Your task to perform on an android device: install app "YouTube Kids" Image 0: 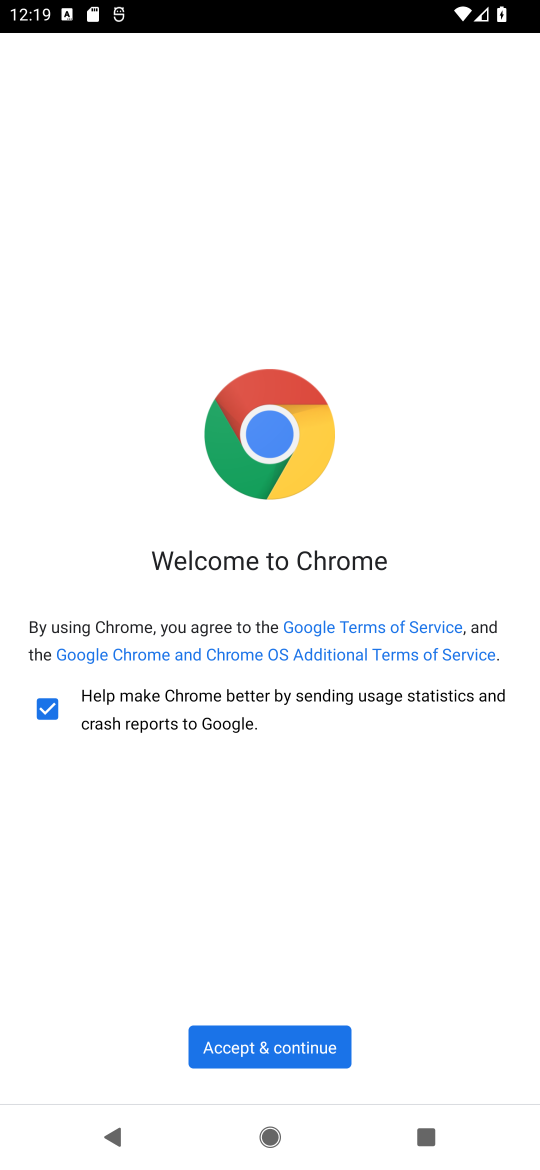
Step 0: press home button
Your task to perform on an android device: install app "YouTube Kids" Image 1: 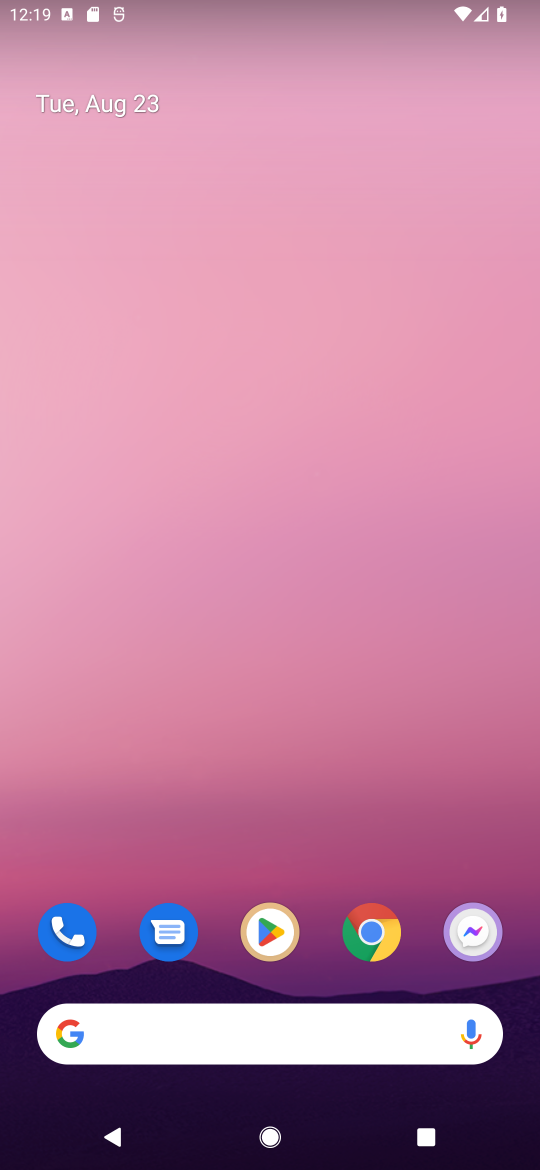
Step 1: click (285, 937)
Your task to perform on an android device: install app "YouTube Kids" Image 2: 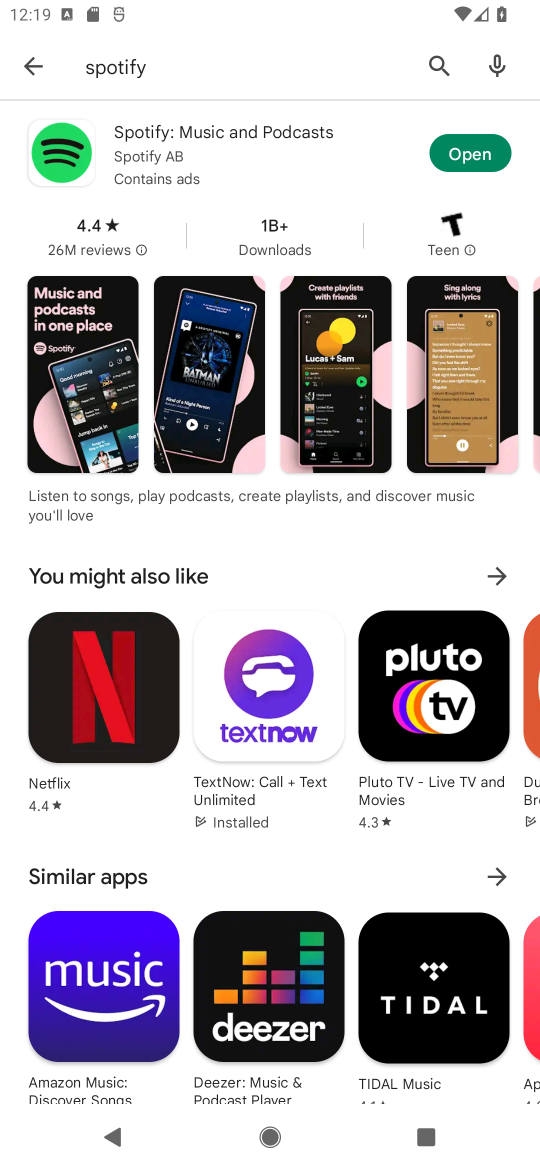
Step 2: click (444, 57)
Your task to perform on an android device: install app "YouTube Kids" Image 3: 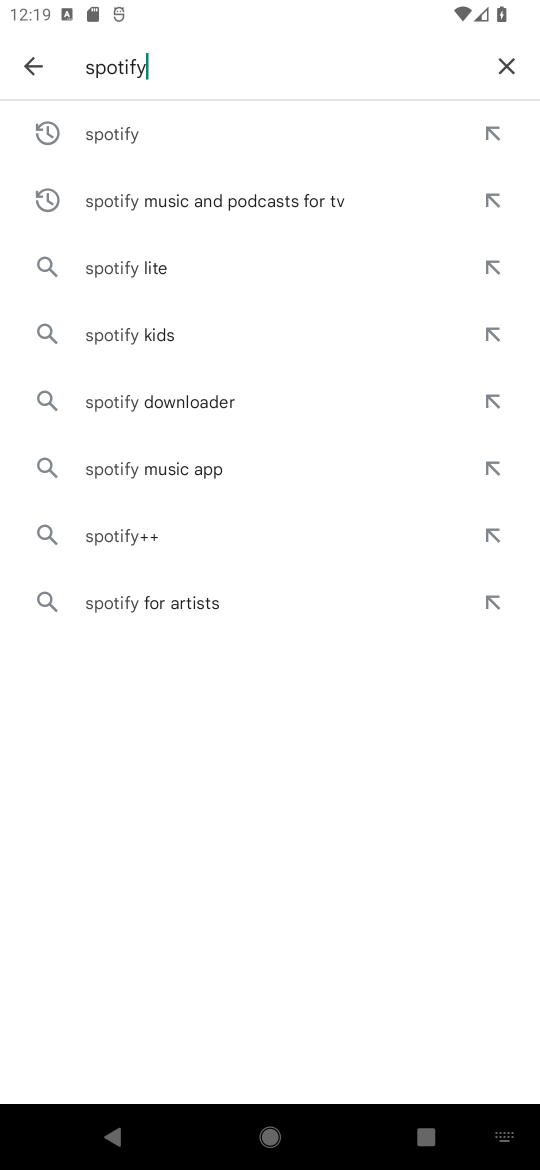
Step 3: click (516, 61)
Your task to perform on an android device: install app "YouTube Kids" Image 4: 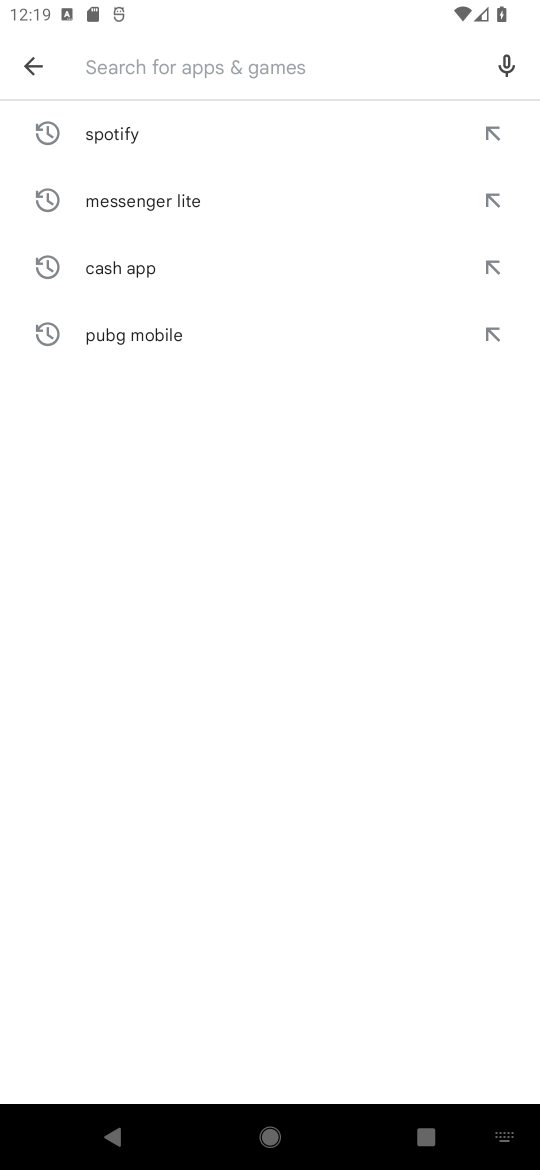
Step 4: click (118, 72)
Your task to perform on an android device: install app "YouTube Kids" Image 5: 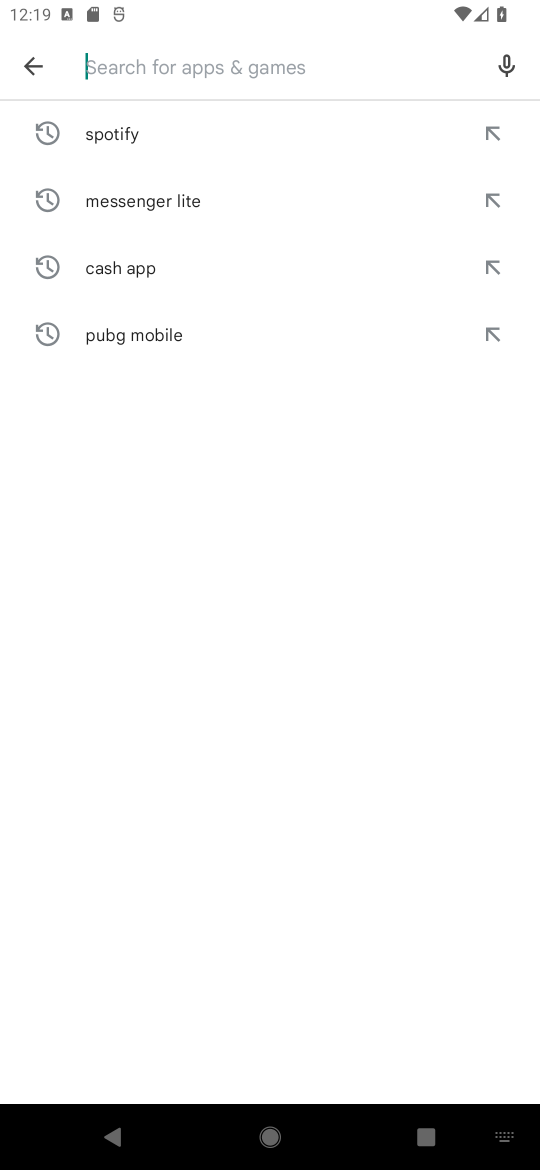
Step 5: type "YouTube Kids"
Your task to perform on an android device: install app "YouTube Kids" Image 6: 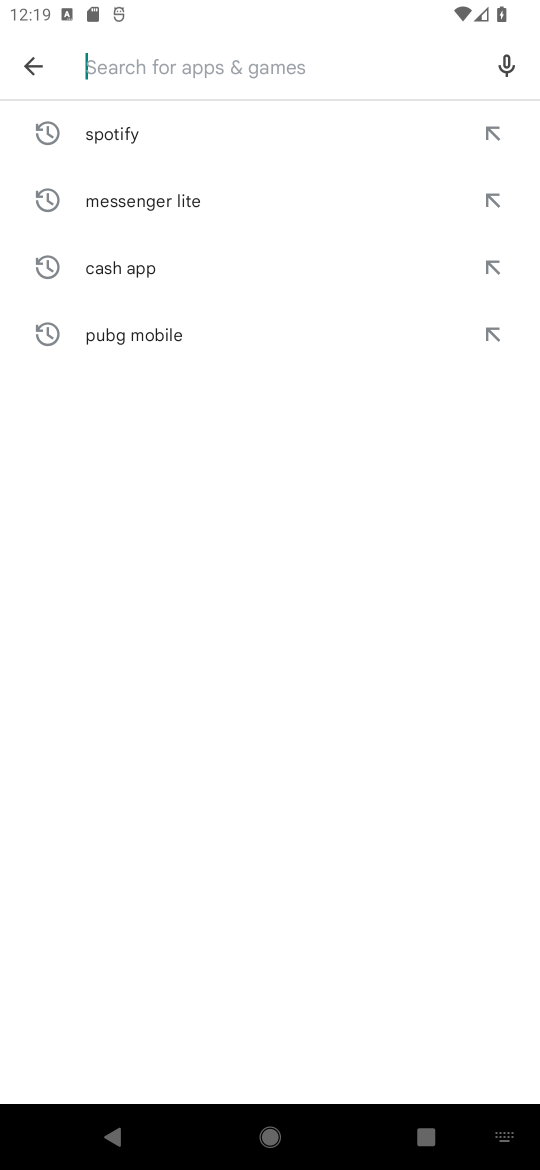
Step 6: click (373, 686)
Your task to perform on an android device: install app "YouTube Kids" Image 7: 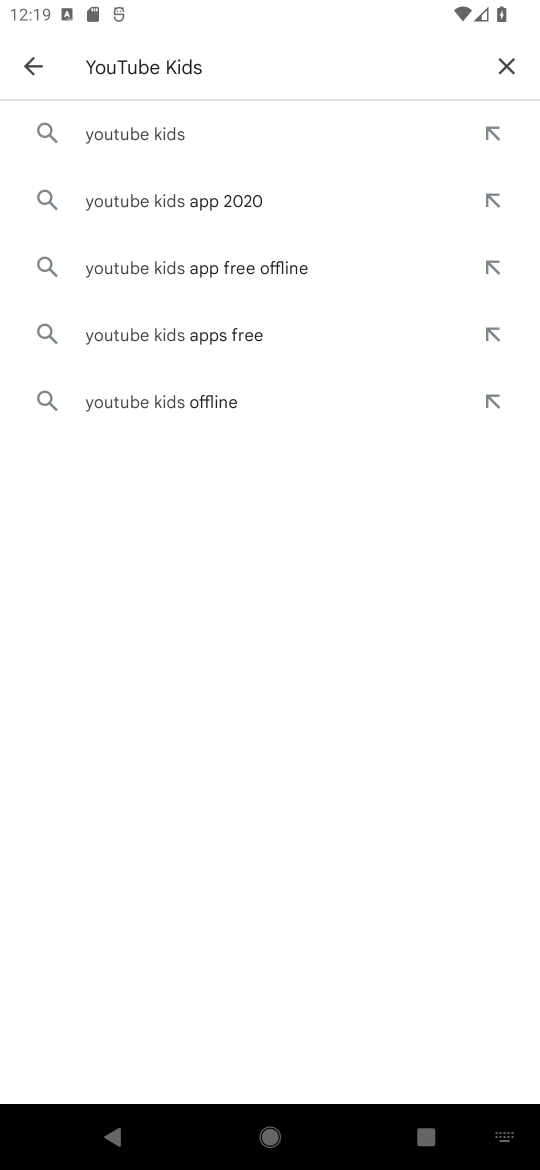
Step 7: click (164, 123)
Your task to perform on an android device: install app "YouTube Kids" Image 8: 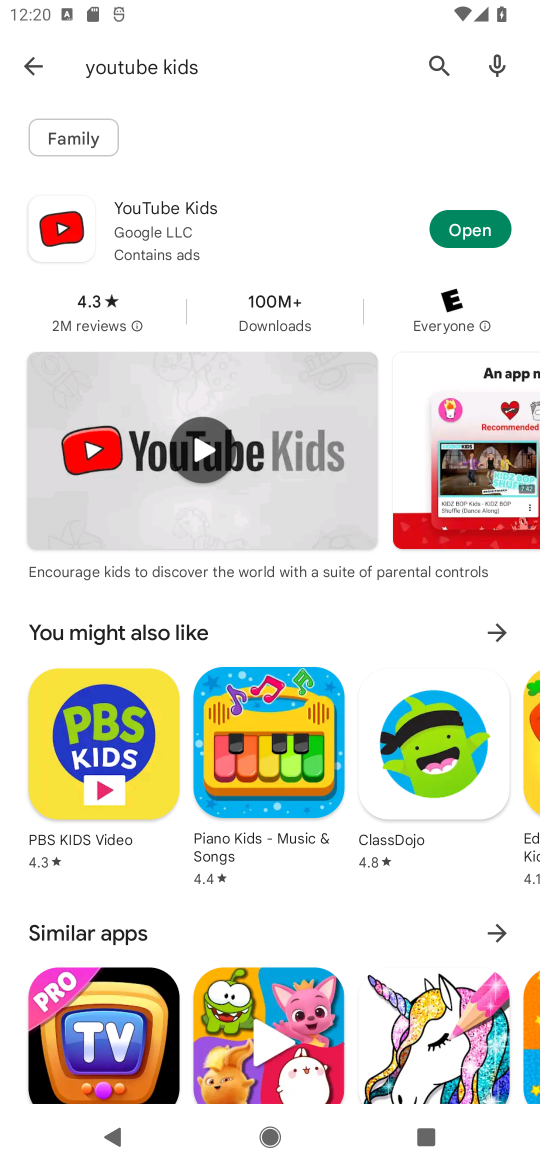
Step 8: task complete